Your task to perform on an android device: turn on data saver in the chrome app Image 0: 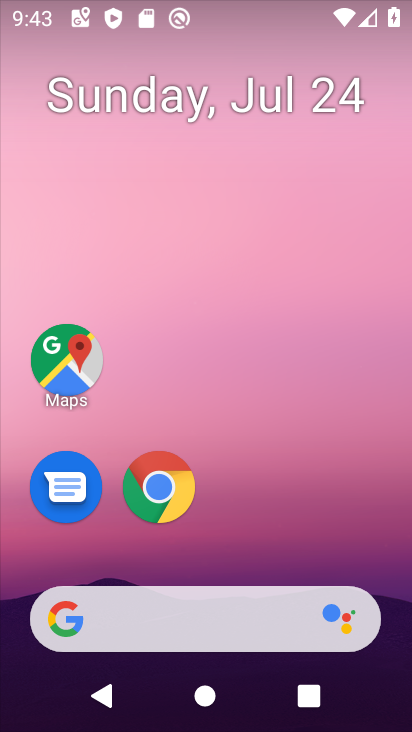
Step 0: click (167, 498)
Your task to perform on an android device: turn on data saver in the chrome app Image 1: 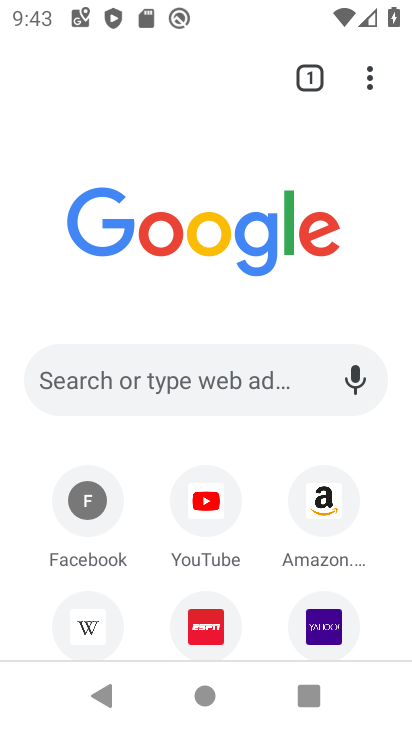
Step 1: drag from (367, 77) to (111, 544)
Your task to perform on an android device: turn on data saver in the chrome app Image 2: 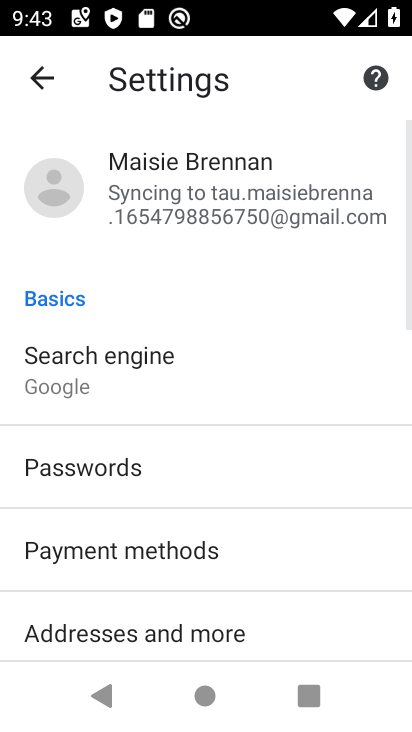
Step 2: drag from (119, 582) to (267, 0)
Your task to perform on an android device: turn on data saver in the chrome app Image 3: 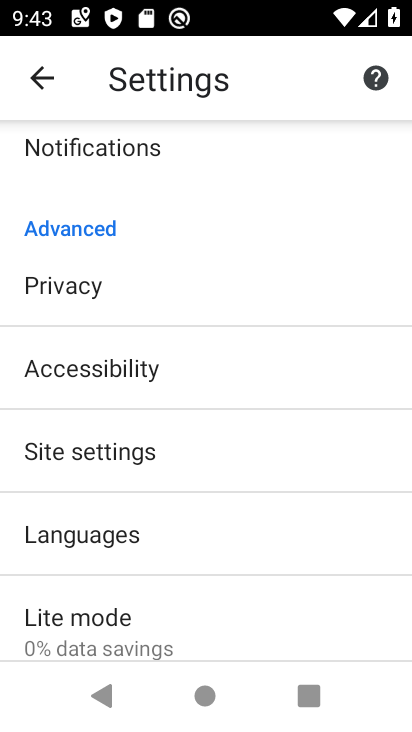
Step 3: click (89, 614)
Your task to perform on an android device: turn on data saver in the chrome app Image 4: 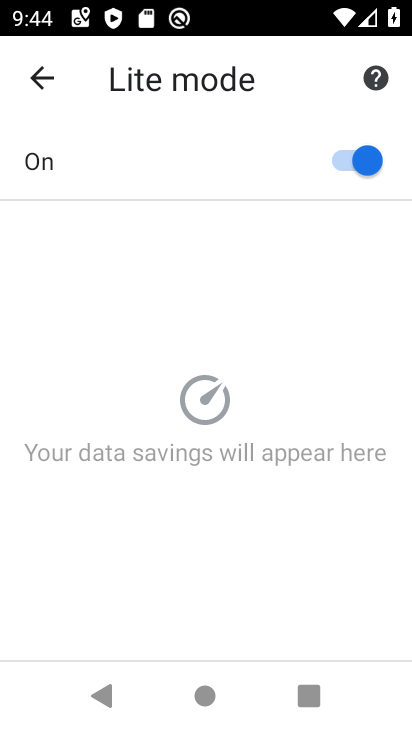
Step 4: task complete